Your task to perform on an android device: Search for pizza restaurants on Maps Image 0: 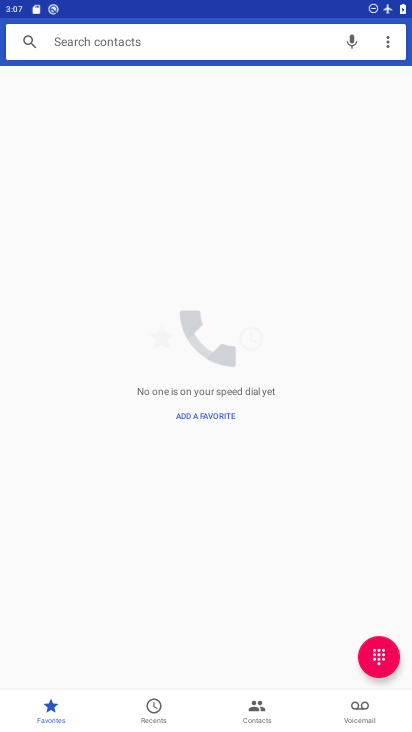
Step 0: press home button
Your task to perform on an android device: Search for pizza restaurants on Maps Image 1: 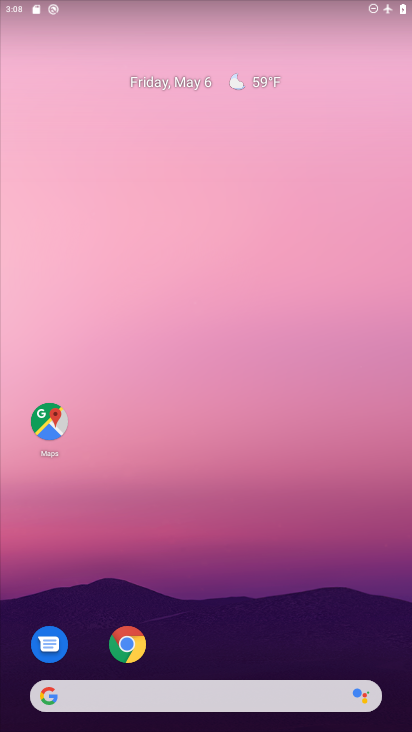
Step 1: drag from (213, 718) to (213, 138)
Your task to perform on an android device: Search for pizza restaurants on Maps Image 2: 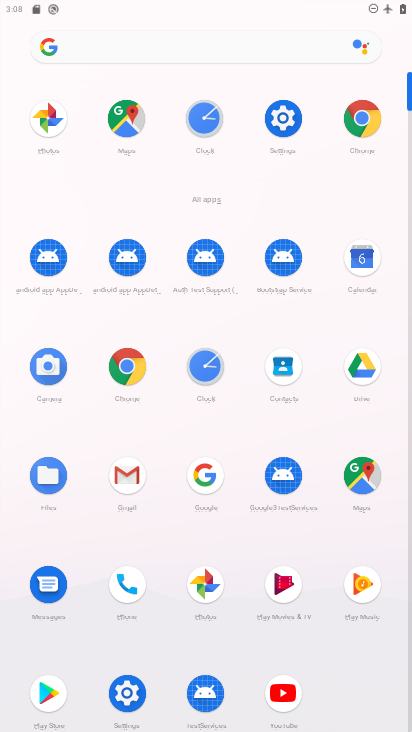
Step 2: click (364, 471)
Your task to perform on an android device: Search for pizza restaurants on Maps Image 3: 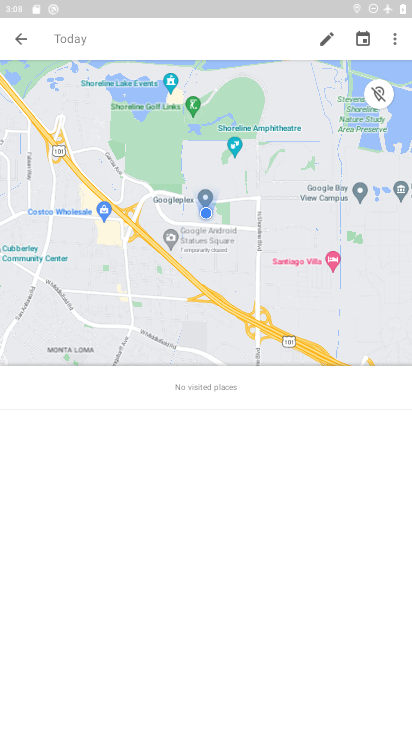
Step 3: click (25, 39)
Your task to perform on an android device: Search for pizza restaurants on Maps Image 4: 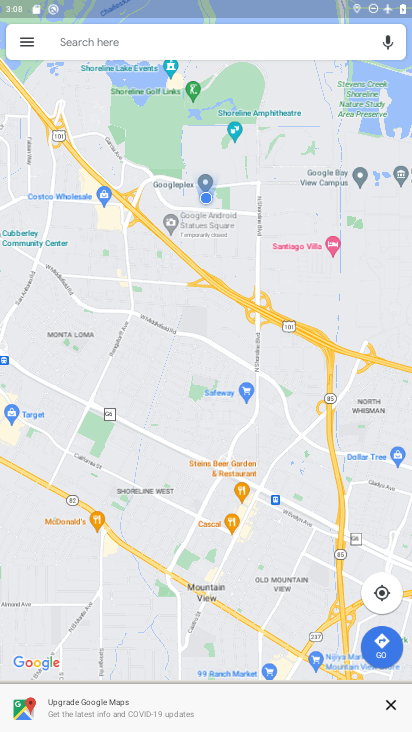
Step 4: click (154, 43)
Your task to perform on an android device: Search for pizza restaurants on Maps Image 5: 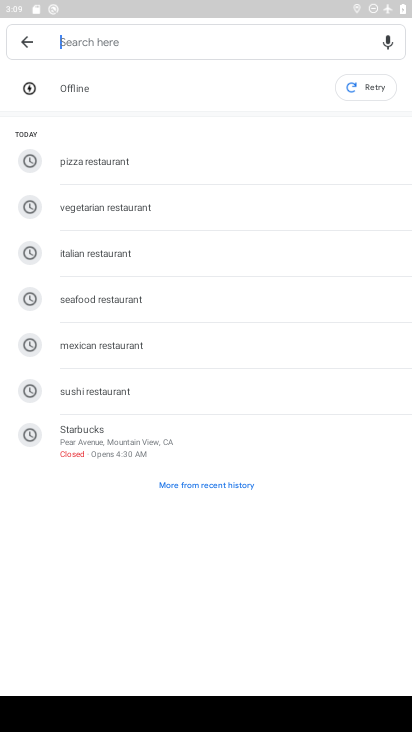
Step 5: type "Pizza restaurants"
Your task to perform on an android device: Search for pizza restaurants on Maps Image 6: 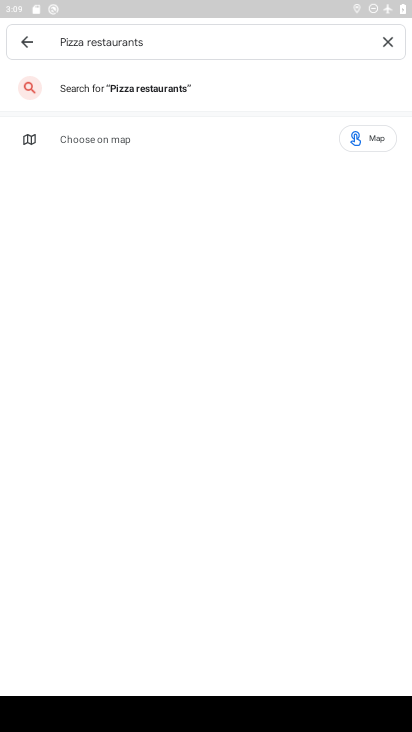
Step 6: click (136, 88)
Your task to perform on an android device: Search for pizza restaurants on Maps Image 7: 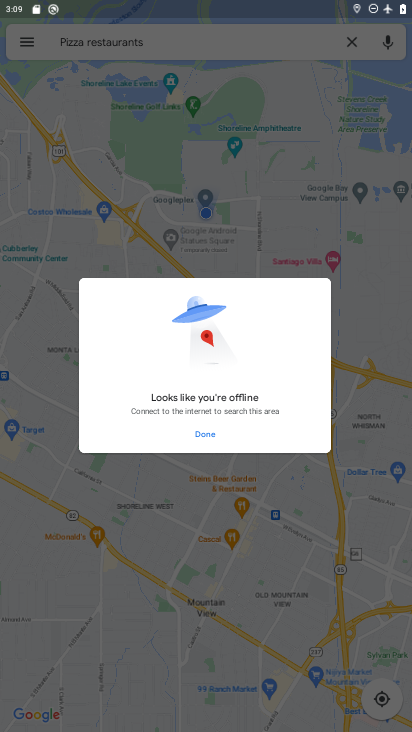
Step 7: task complete